Your task to perform on an android device: Go to notification settings Image 0: 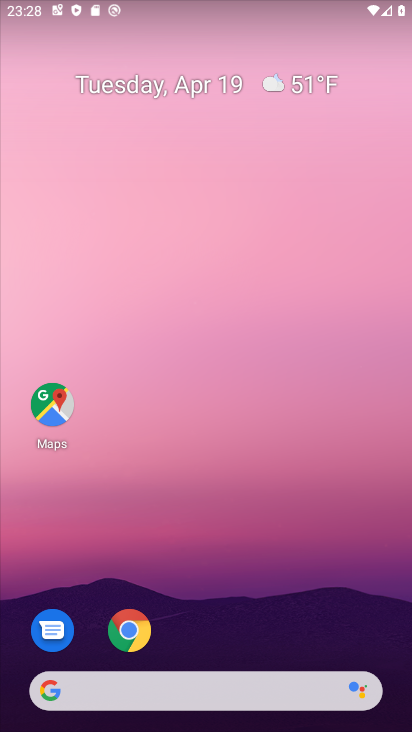
Step 0: drag from (290, 595) to (242, 181)
Your task to perform on an android device: Go to notification settings Image 1: 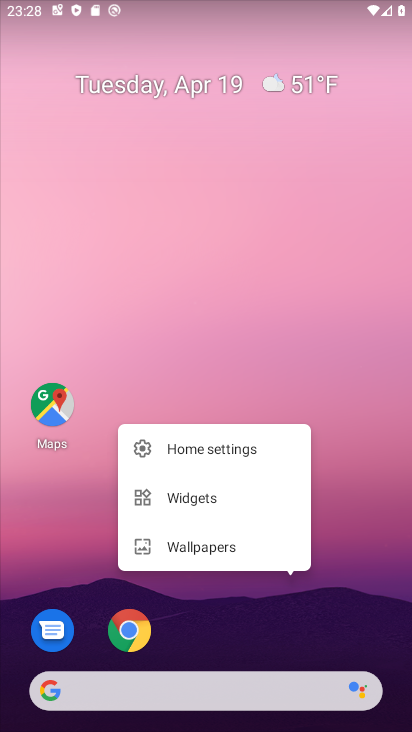
Step 1: drag from (368, 538) to (334, 139)
Your task to perform on an android device: Go to notification settings Image 2: 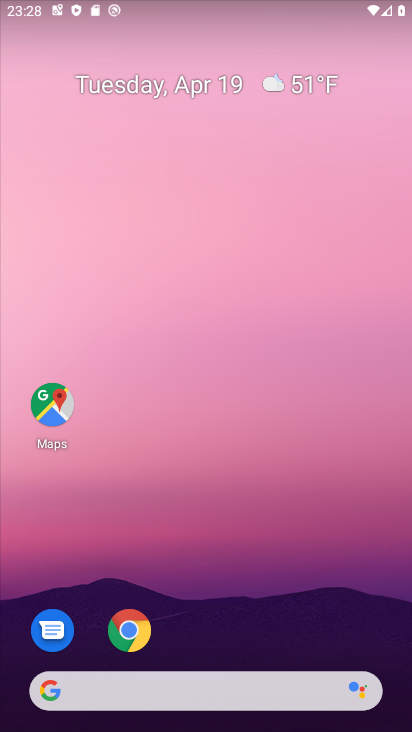
Step 2: drag from (326, 616) to (290, 180)
Your task to perform on an android device: Go to notification settings Image 3: 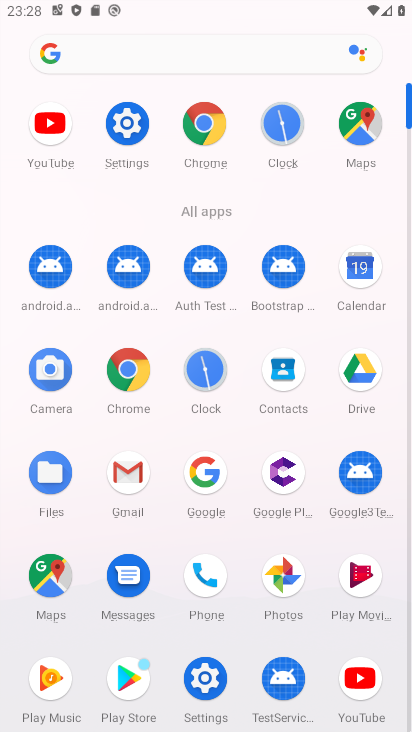
Step 3: click (201, 675)
Your task to perform on an android device: Go to notification settings Image 4: 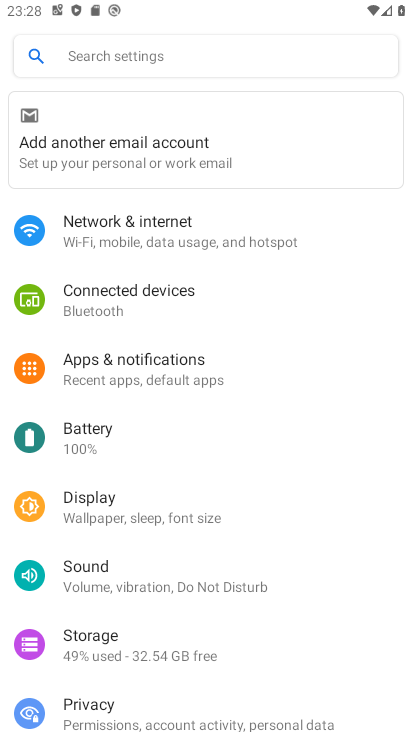
Step 4: click (269, 372)
Your task to perform on an android device: Go to notification settings Image 5: 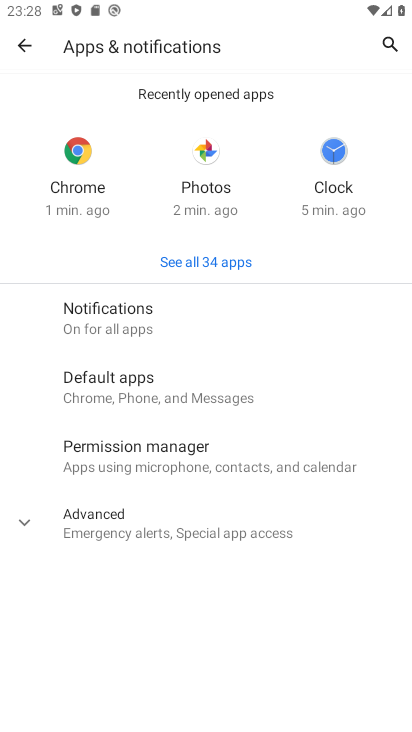
Step 5: click (261, 338)
Your task to perform on an android device: Go to notification settings Image 6: 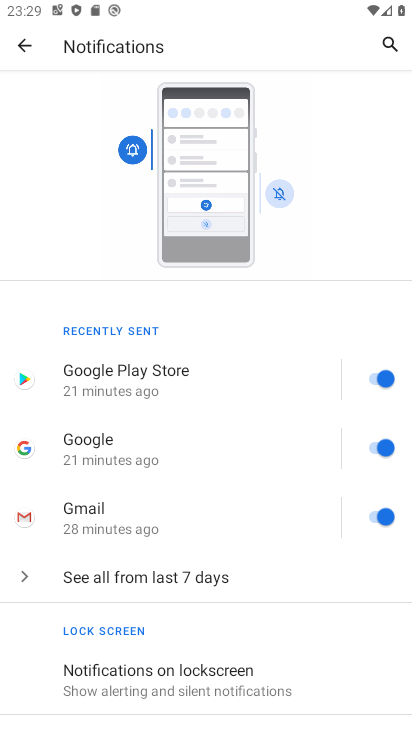
Step 6: task complete